Your task to perform on an android device: refresh tabs in the chrome app Image 0: 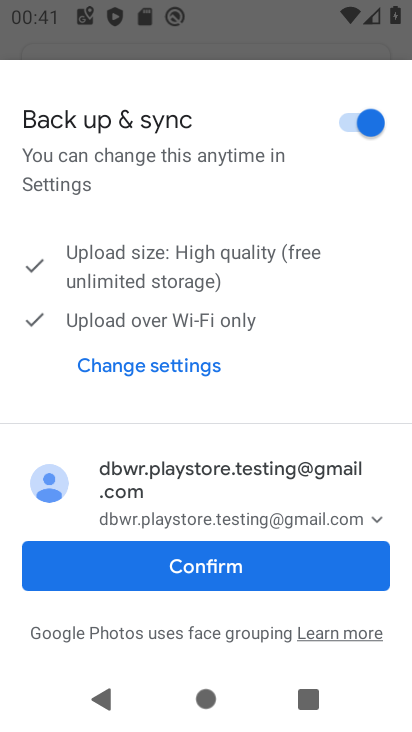
Step 0: press home button
Your task to perform on an android device: refresh tabs in the chrome app Image 1: 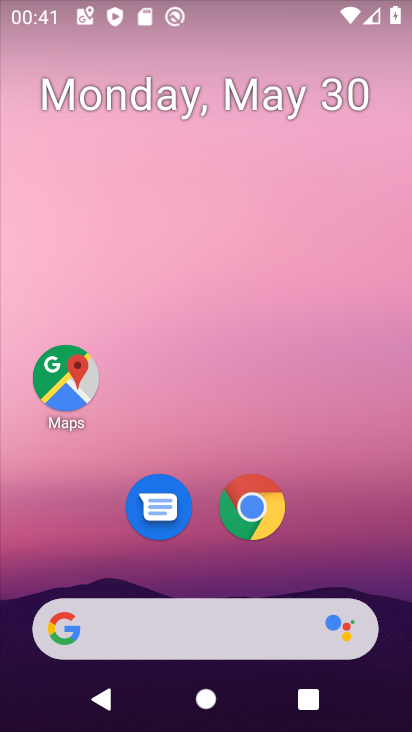
Step 1: click (262, 499)
Your task to perform on an android device: refresh tabs in the chrome app Image 2: 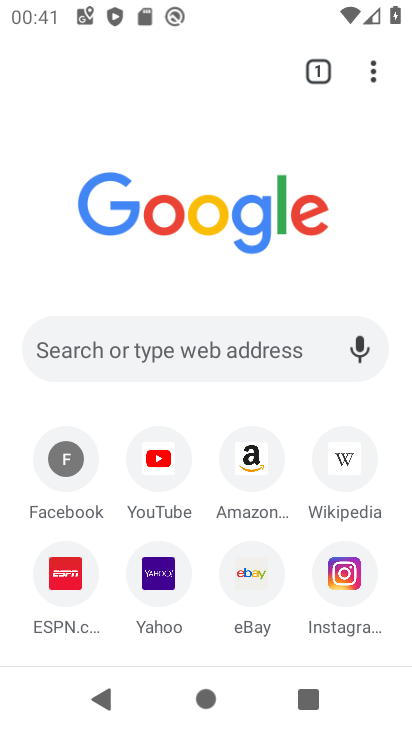
Step 2: click (384, 68)
Your task to perform on an android device: refresh tabs in the chrome app Image 3: 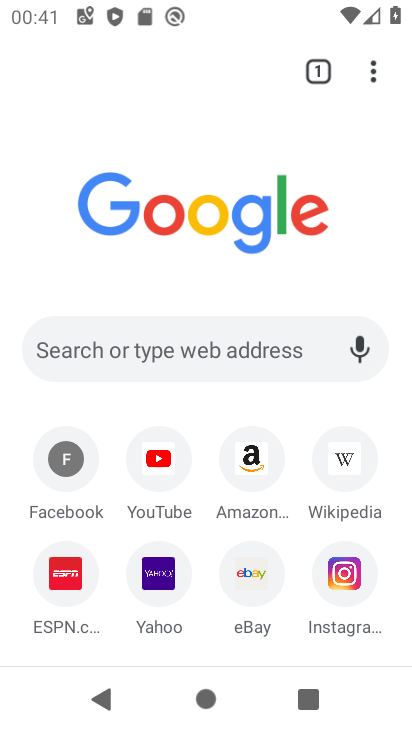
Step 3: click (384, 68)
Your task to perform on an android device: refresh tabs in the chrome app Image 4: 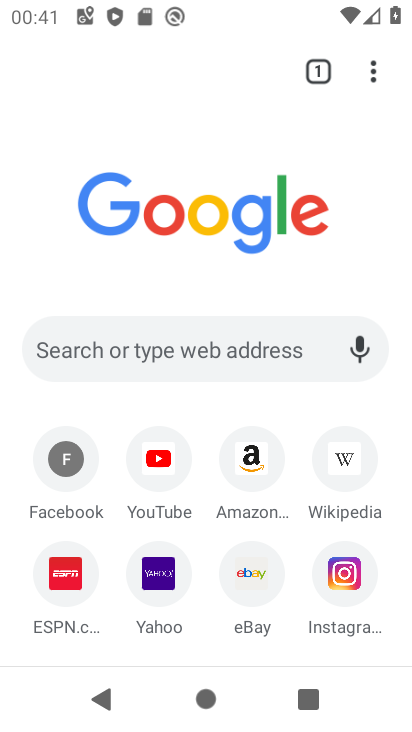
Step 4: click (365, 74)
Your task to perform on an android device: refresh tabs in the chrome app Image 5: 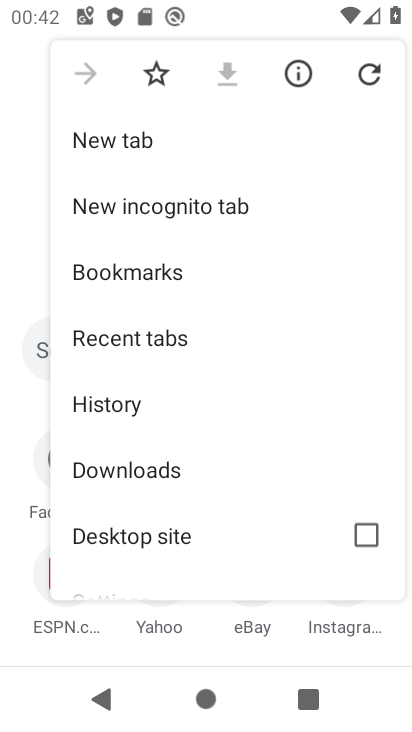
Step 5: click (362, 67)
Your task to perform on an android device: refresh tabs in the chrome app Image 6: 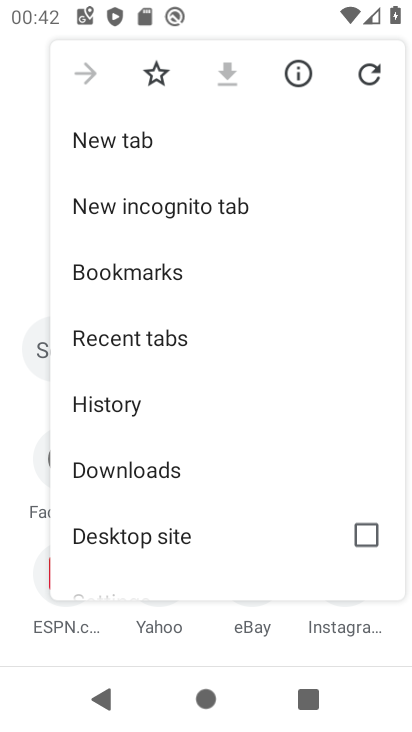
Step 6: task complete